Your task to perform on an android device: set the timer Image 0: 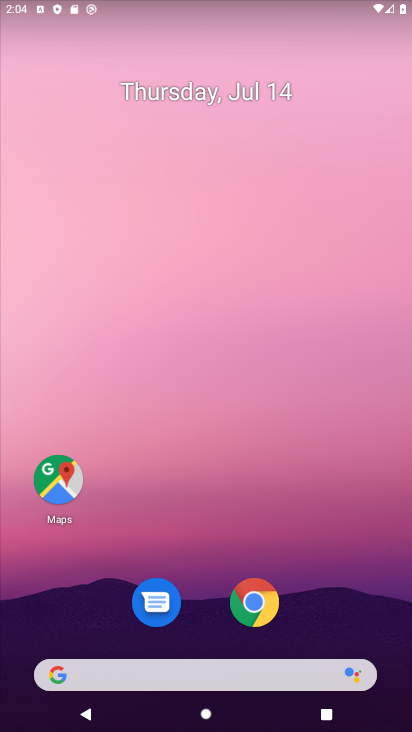
Step 0: drag from (394, 652) to (329, 125)
Your task to perform on an android device: set the timer Image 1: 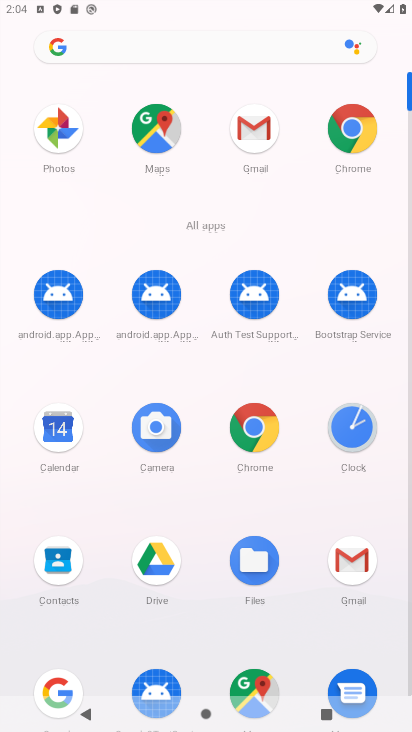
Step 1: click (351, 429)
Your task to perform on an android device: set the timer Image 2: 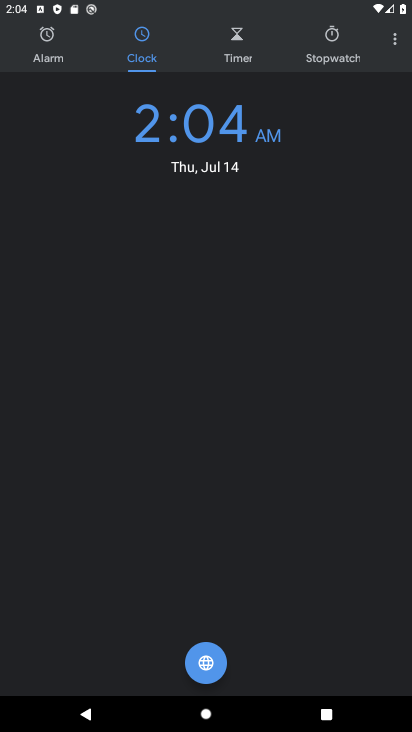
Step 2: click (232, 40)
Your task to perform on an android device: set the timer Image 3: 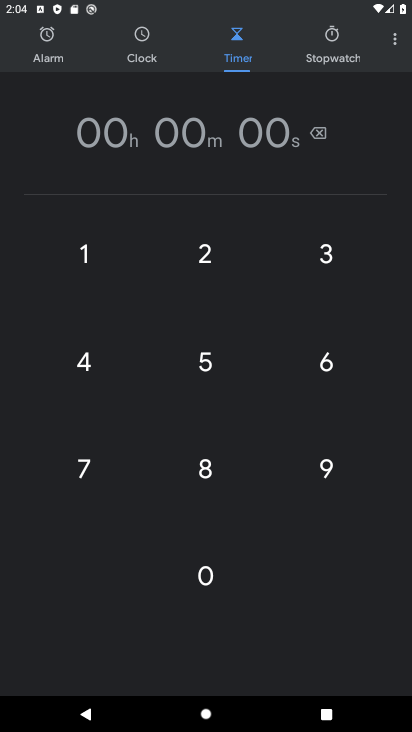
Step 3: click (82, 254)
Your task to perform on an android device: set the timer Image 4: 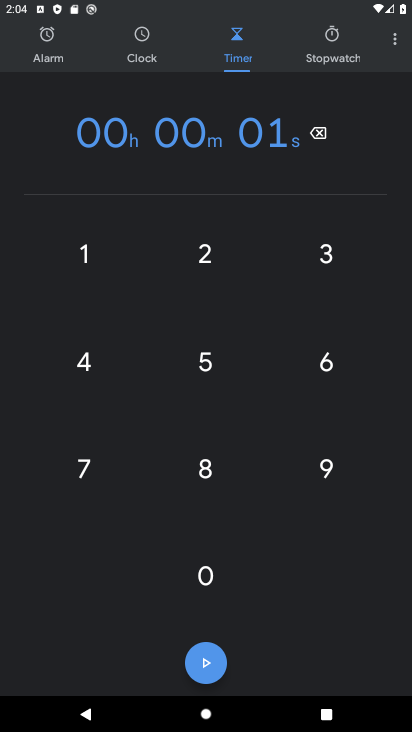
Step 4: click (320, 249)
Your task to perform on an android device: set the timer Image 5: 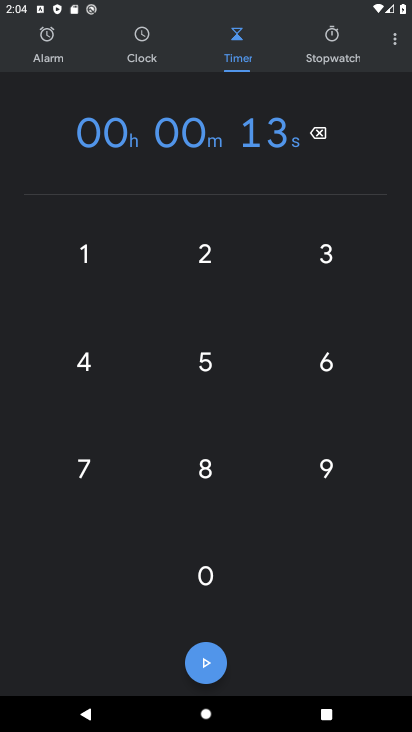
Step 5: click (320, 249)
Your task to perform on an android device: set the timer Image 6: 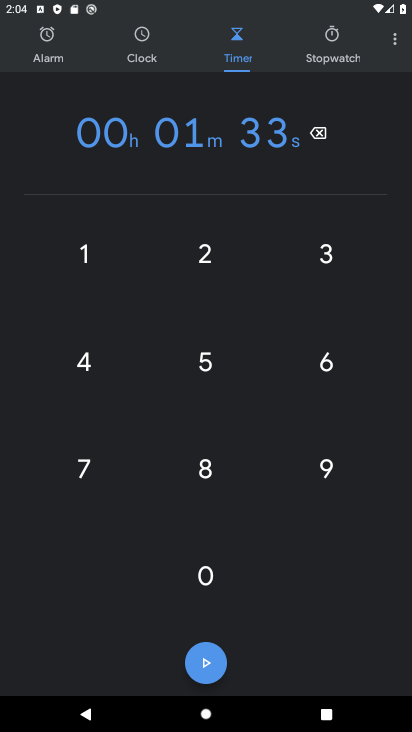
Step 6: click (202, 576)
Your task to perform on an android device: set the timer Image 7: 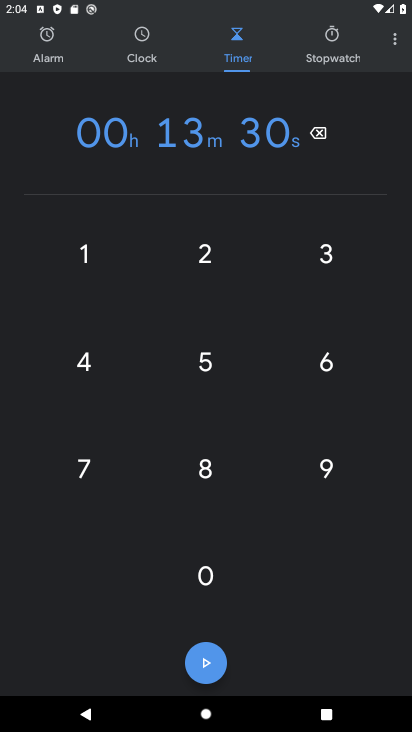
Step 7: click (202, 576)
Your task to perform on an android device: set the timer Image 8: 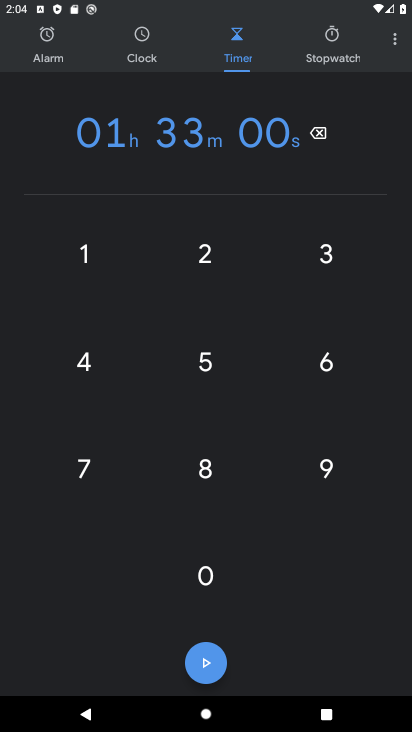
Step 8: task complete